Your task to perform on an android device: turn off sleep mode Image 0: 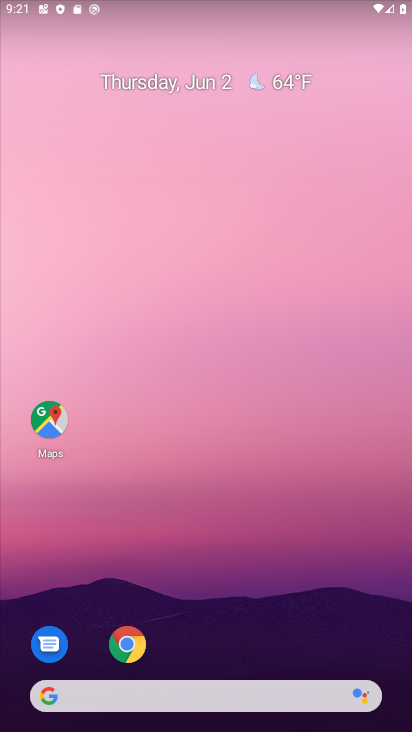
Step 0: drag from (231, 601) to (229, 113)
Your task to perform on an android device: turn off sleep mode Image 1: 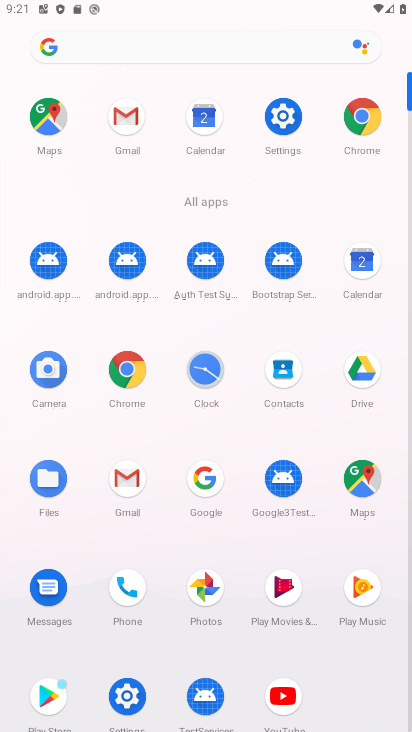
Step 1: click (277, 113)
Your task to perform on an android device: turn off sleep mode Image 2: 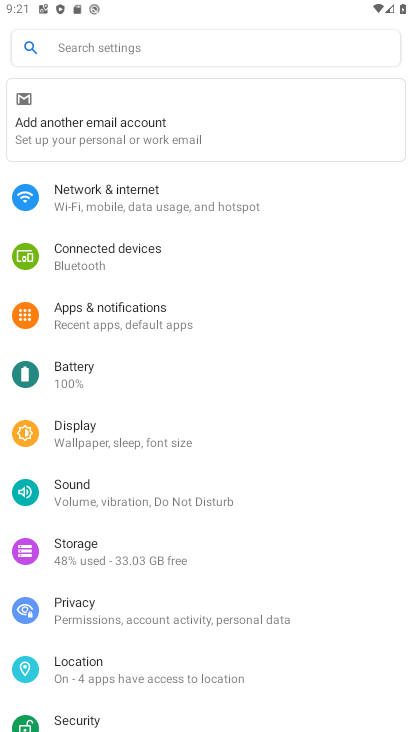
Step 2: click (99, 427)
Your task to perform on an android device: turn off sleep mode Image 3: 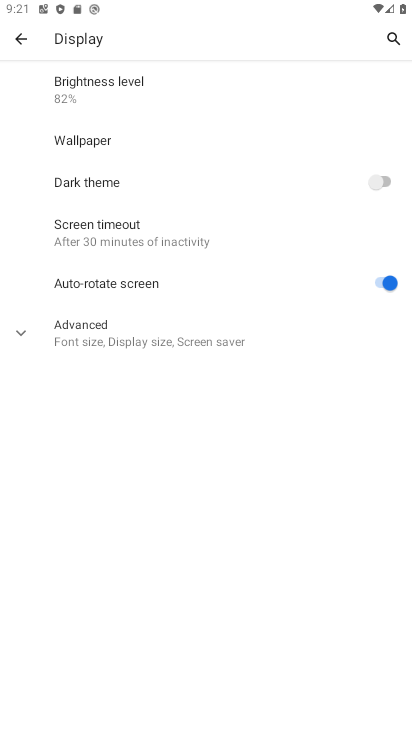
Step 3: task complete